Your task to perform on an android device: turn on the 24-hour format for clock Image 0: 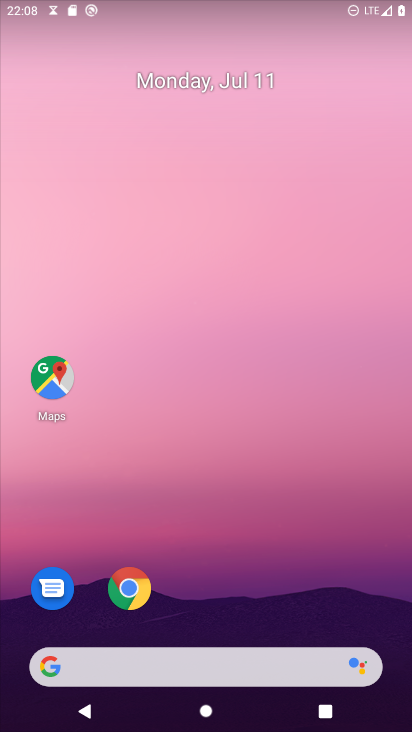
Step 0: press home button
Your task to perform on an android device: turn on the 24-hour format for clock Image 1: 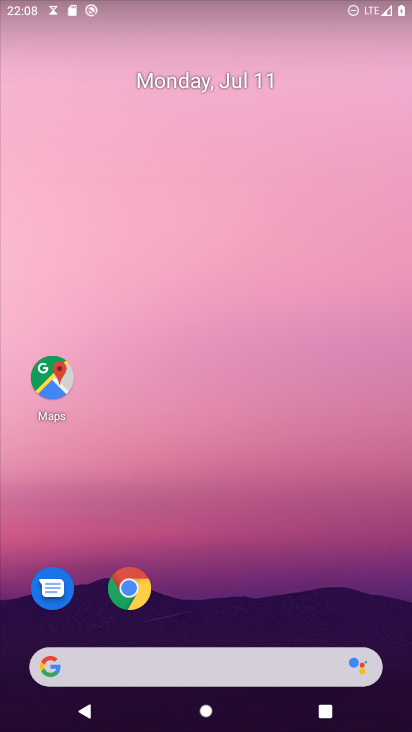
Step 1: drag from (202, 576) to (207, 60)
Your task to perform on an android device: turn on the 24-hour format for clock Image 2: 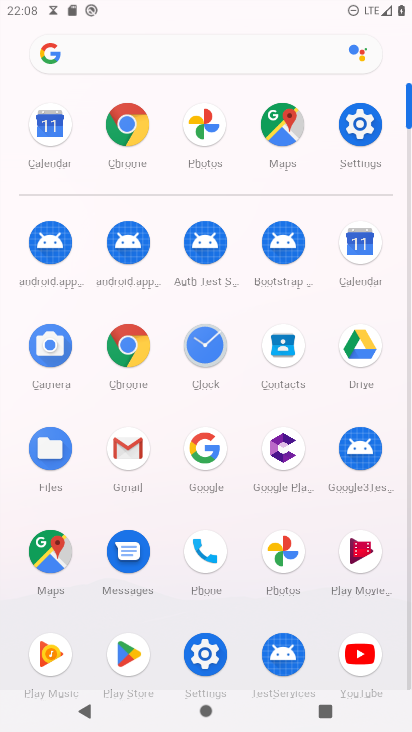
Step 2: click (194, 345)
Your task to perform on an android device: turn on the 24-hour format for clock Image 3: 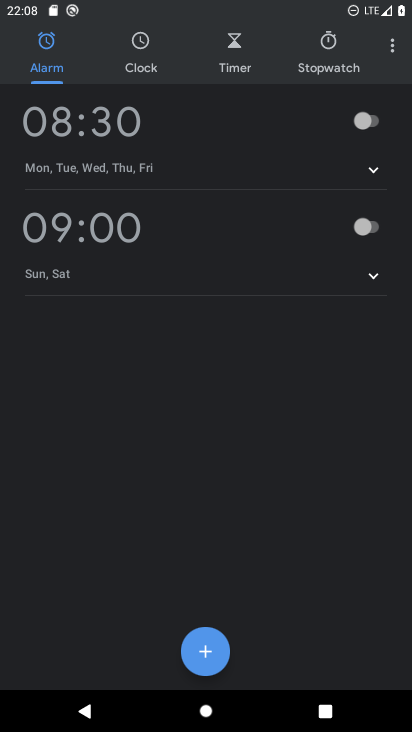
Step 3: click (389, 45)
Your task to perform on an android device: turn on the 24-hour format for clock Image 4: 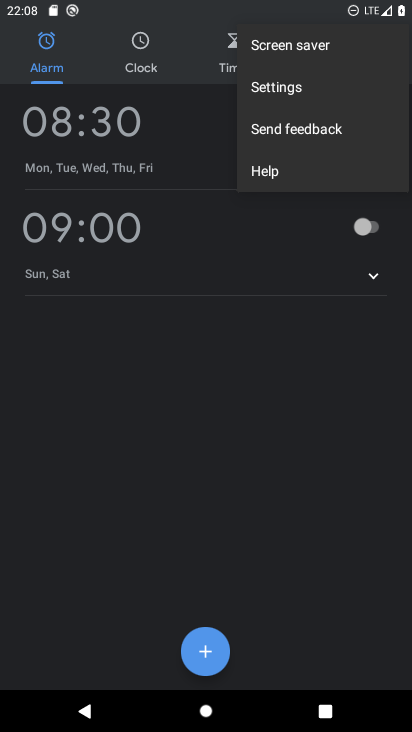
Step 4: click (310, 91)
Your task to perform on an android device: turn on the 24-hour format for clock Image 5: 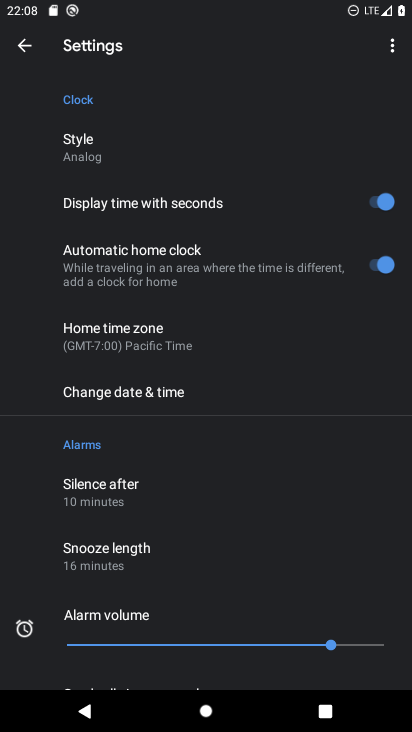
Step 5: click (126, 401)
Your task to perform on an android device: turn on the 24-hour format for clock Image 6: 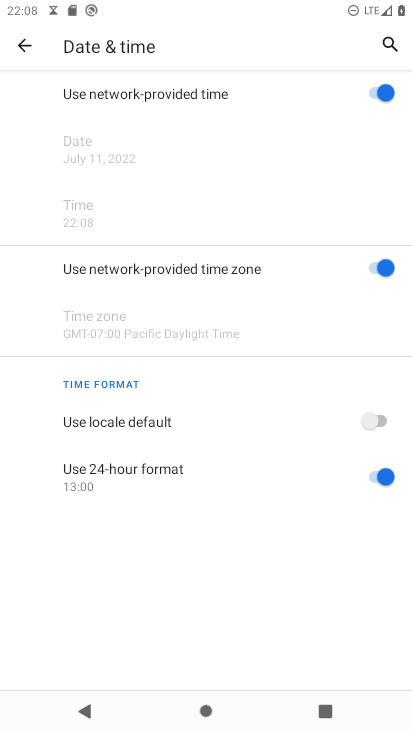
Step 6: task complete